Your task to perform on an android device: turn on wifi Image 0: 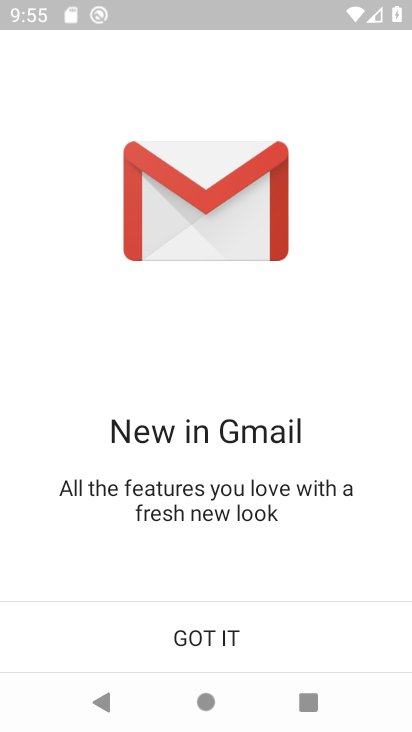
Step 0: press home button
Your task to perform on an android device: turn on wifi Image 1: 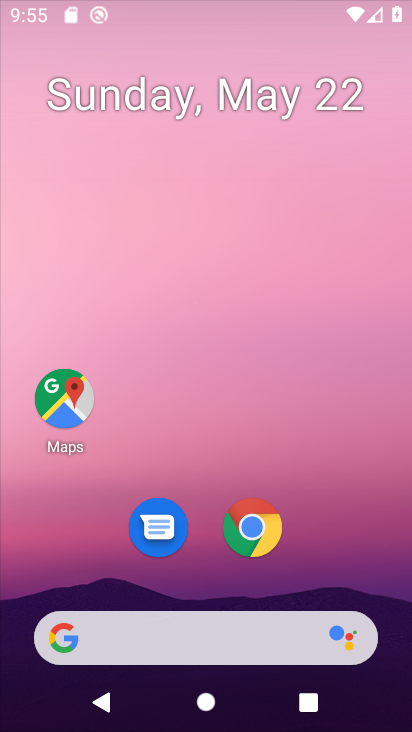
Step 1: drag from (229, 594) to (264, 137)
Your task to perform on an android device: turn on wifi Image 2: 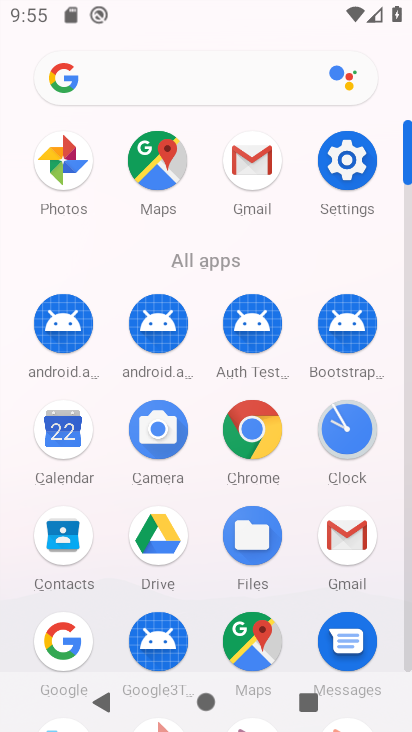
Step 2: click (348, 176)
Your task to perform on an android device: turn on wifi Image 3: 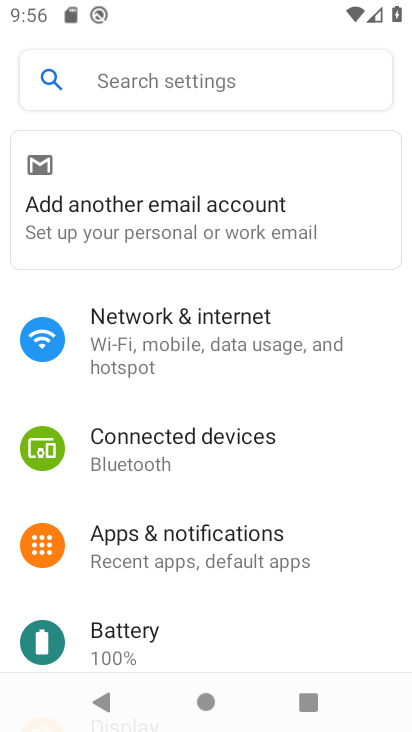
Step 3: click (223, 332)
Your task to perform on an android device: turn on wifi Image 4: 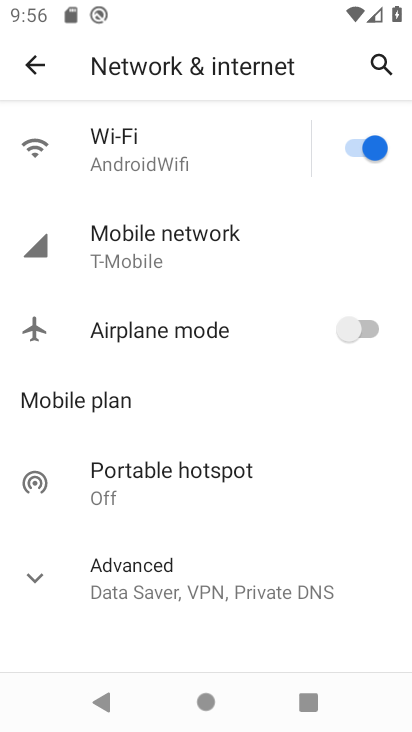
Step 4: click (234, 151)
Your task to perform on an android device: turn on wifi Image 5: 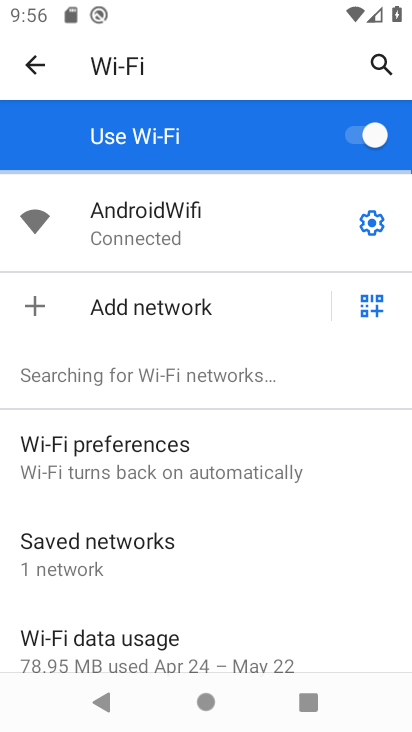
Step 5: task complete